Your task to perform on an android device: What's the weather going to be tomorrow? Image 0: 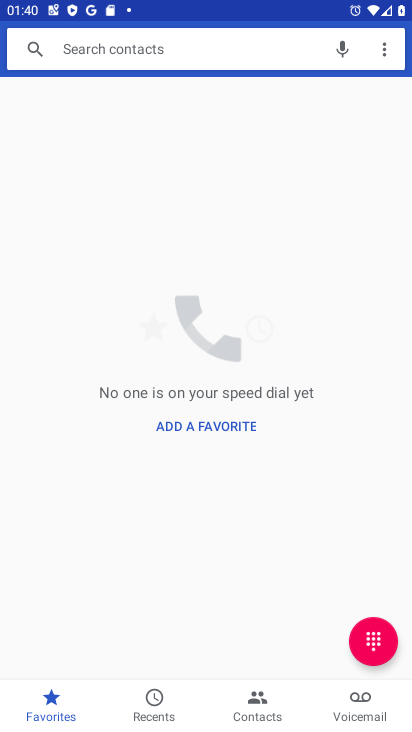
Step 0: press home button
Your task to perform on an android device: What's the weather going to be tomorrow? Image 1: 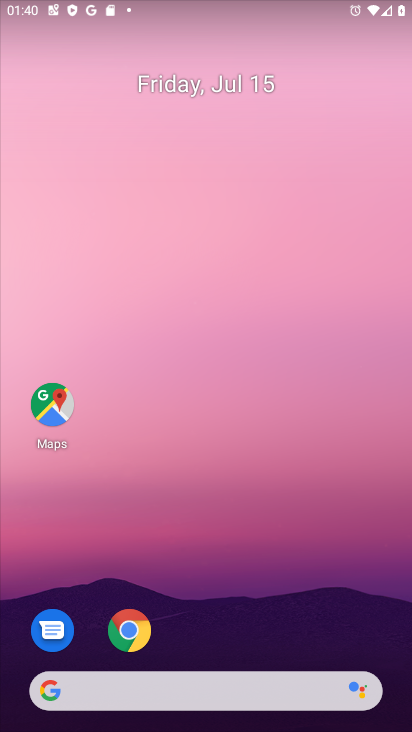
Step 1: drag from (249, 634) to (130, 167)
Your task to perform on an android device: What's the weather going to be tomorrow? Image 2: 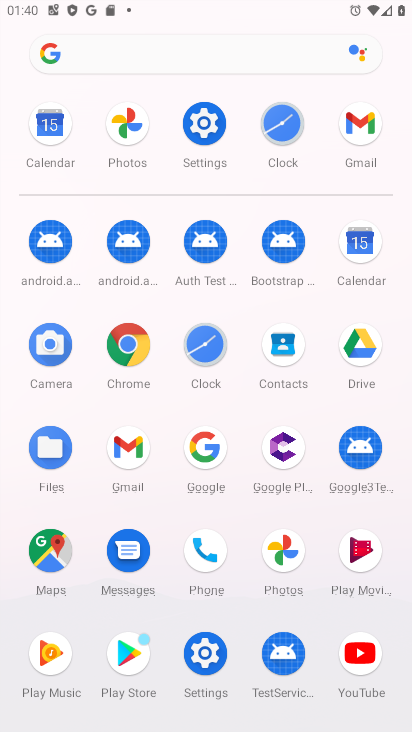
Step 2: click (222, 63)
Your task to perform on an android device: What's the weather going to be tomorrow? Image 3: 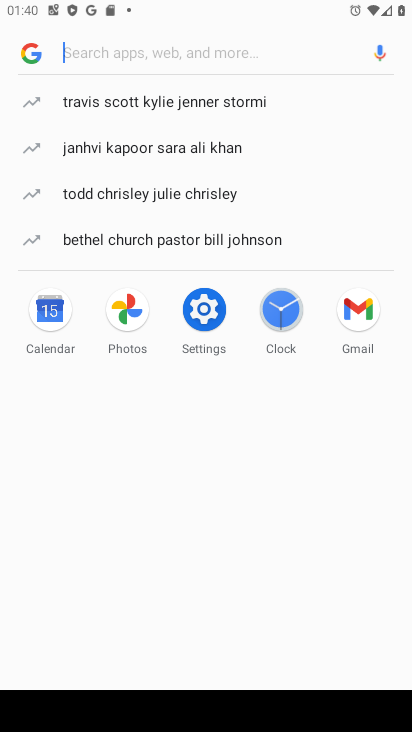
Step 3: type "wewather"
Your task to perform on an android device: What's the weather going to be tomorrow? Image 4: 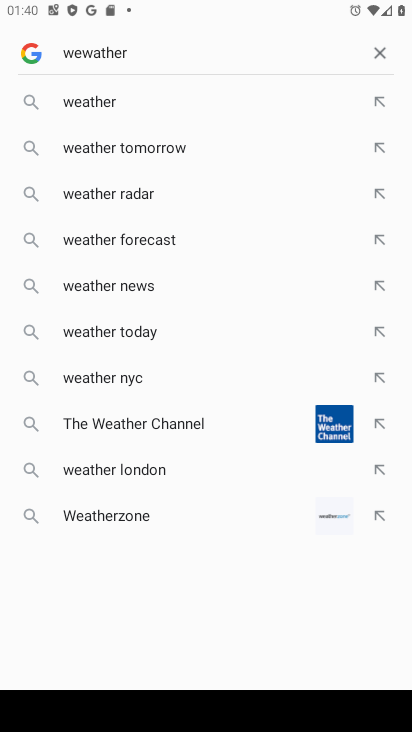
Step 4: click (113, 98)
Your task to perform on an android device: What's the weather going to be tomorrow? Image 5: 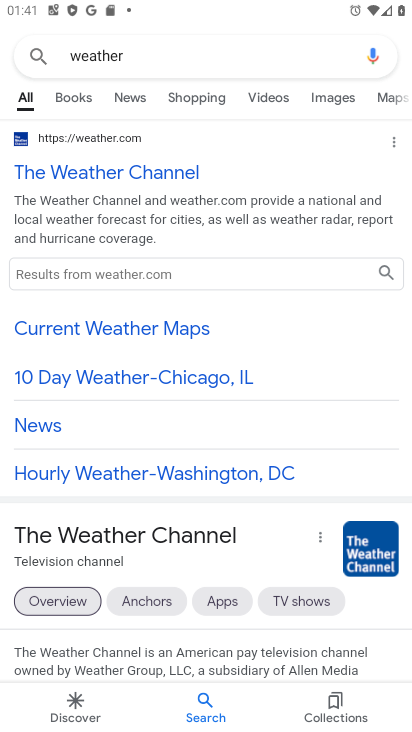
Step 5: press back button
Your task to perform on an android device: What's the weather going to be tomorrow? Image 6: 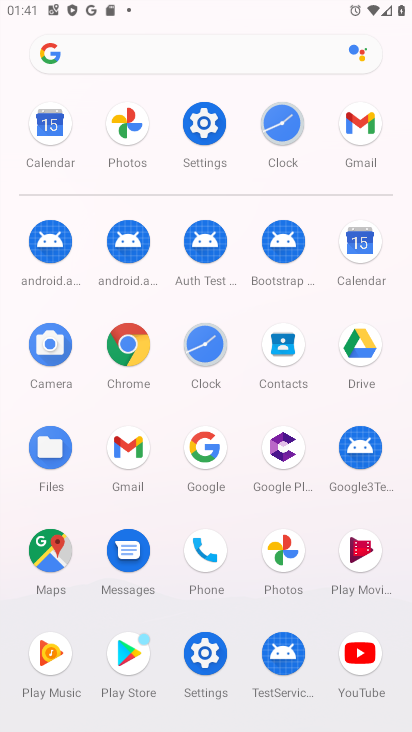
Step 6: click (192, 60)
Your task to perform on an android device: What's the weather going to be tomorrow? Image 7: 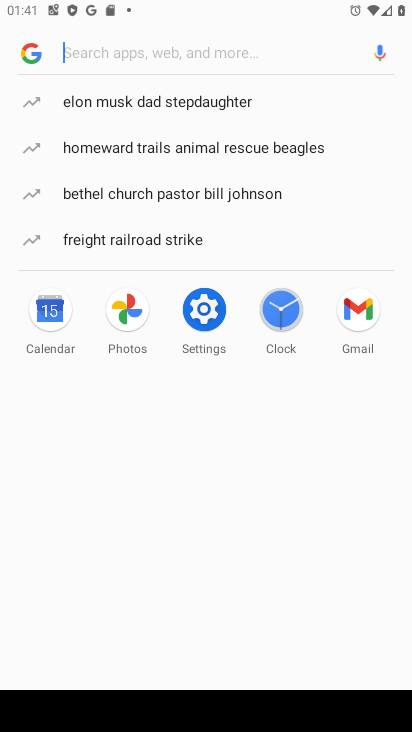
Step 7: type "weather"
Your task to perform on an android device: What's the weather going to be tomorrow? Image 8: 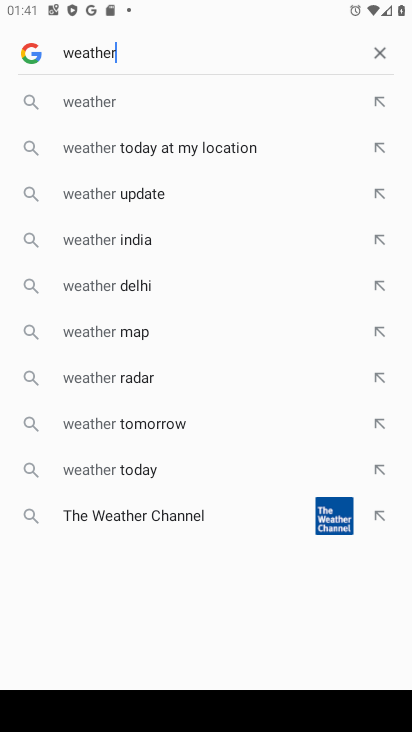
Step 8: click (188, 104)
Your task to perform on an android device: What's the weather going to be tomorrow? Image 9: 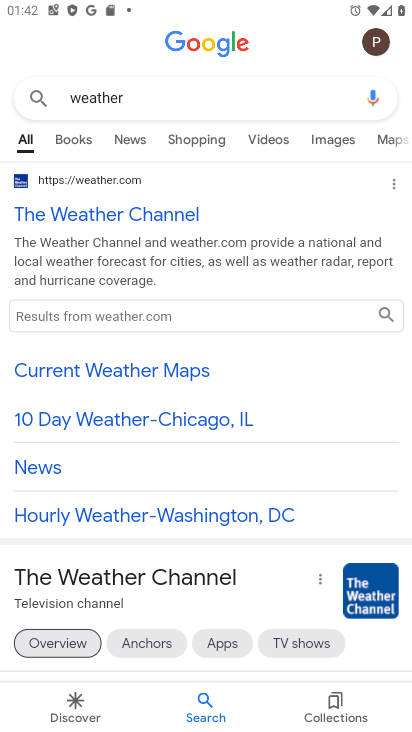
Step 9: task complete